Your task to perform on an android device: turn vacation reply on in the gmail app Image 0: 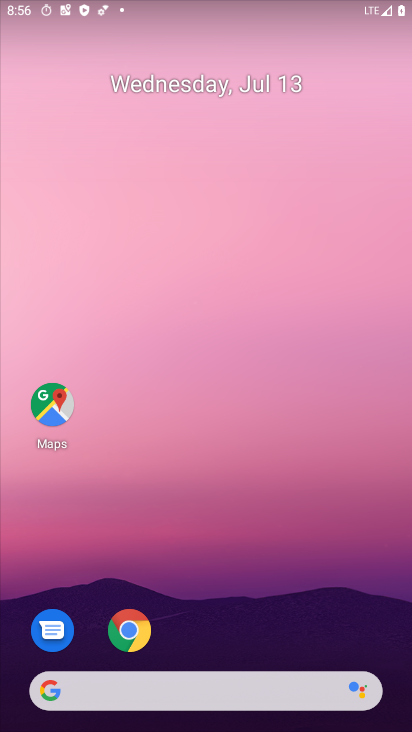
Step 0: drag from (316, 621) to (379, 184)
Your task to perform on an android device: turn vacation reply on in the gmail app Image 1: 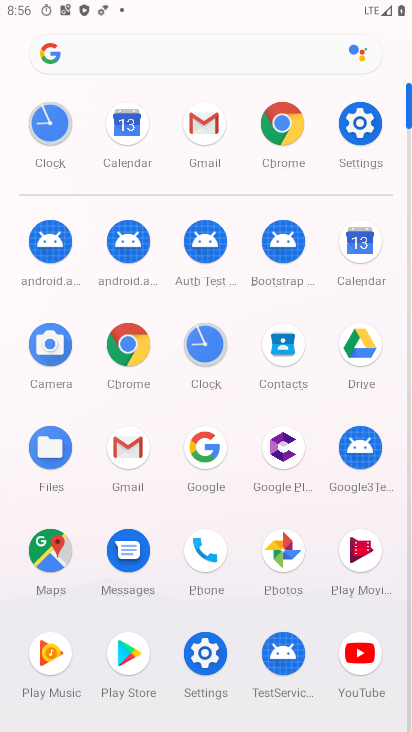
Step 1: click (130, 453)
Your task to perform on an android device: turn vacation reply on in the gmail app Image 2: 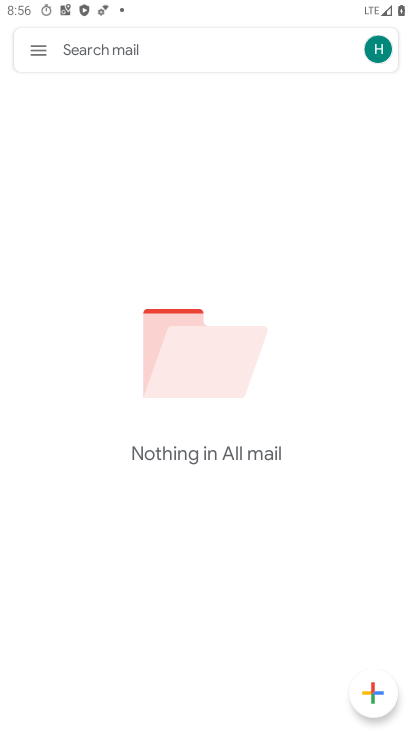
Step 2: click (43, 54)
Your task to perform on an android device: turn vacation reply on in the gmail app Image 3: 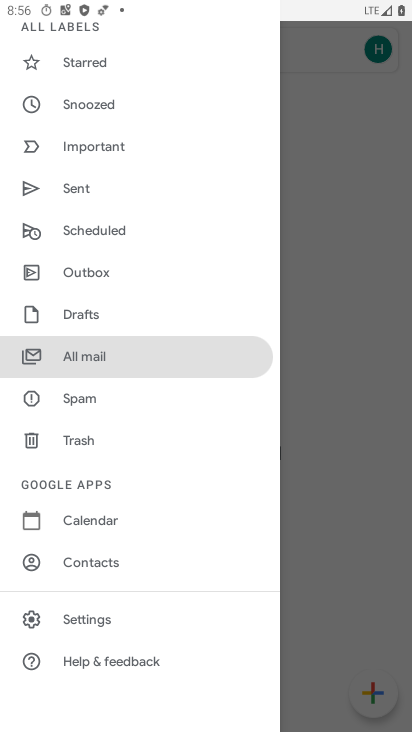
Step 3: drag from (189, 233) to (194, 354)
Your task to perform on an android device: turn vacation reply on in the gmail app Image 4: 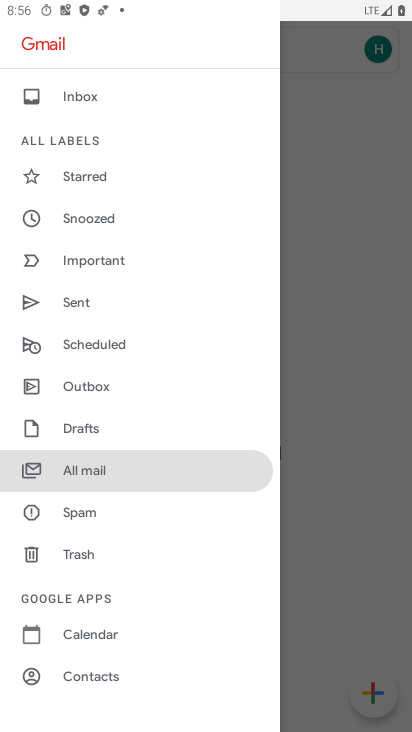
Step 4: drag from (203, 192) to (205, 398)
Your task to perform on an android device: turn vacation reply on in the gmail app Image 5: 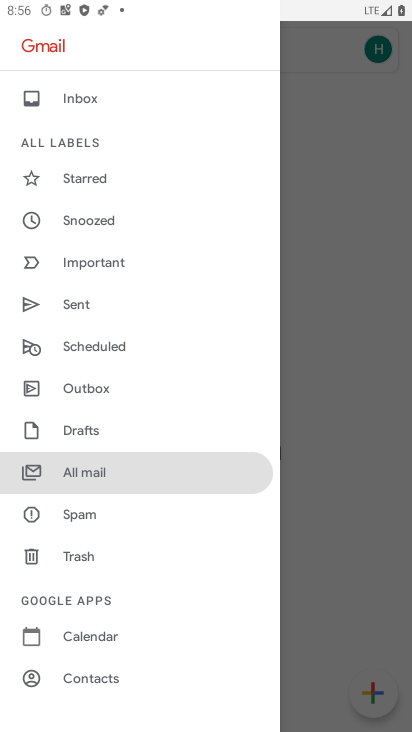
Step 5: drag from (215, 467) to (230, 269)
Your task to perform on an android device: turn vacation reply on in the gmail app Image 6: 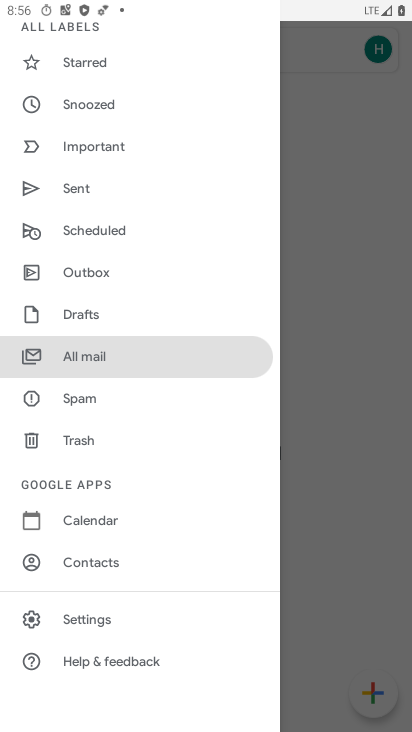
Step 6: click (104, 628)
Your task to perform on an android device: turn vacation reply on in the gmail app Image 7: 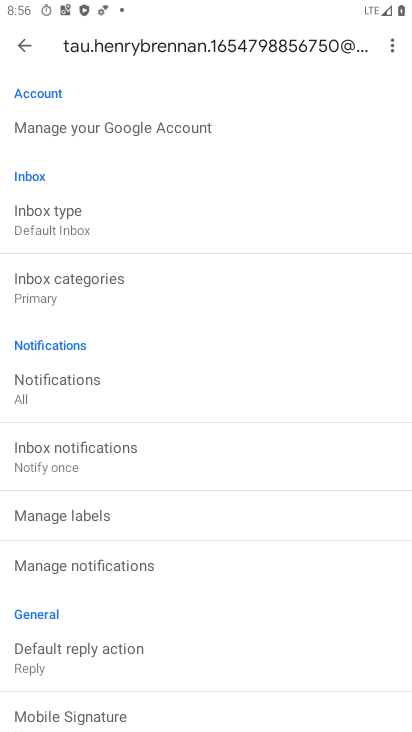
Step 7: drag from (255, 571) to (273, 448)
Your task to perform on an android device: turn vacation reply on in the gmail app Image 8: 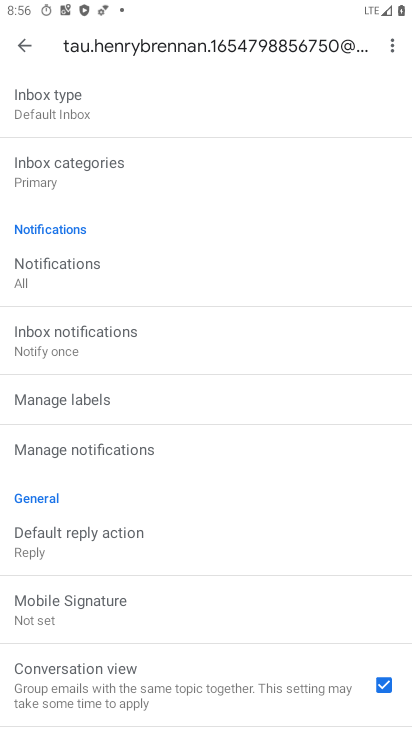
Step 8: drag from (282, 537) to (285, 425)
Your task to perform on an android device: turn vacation reply on in the gmail app Image 9: 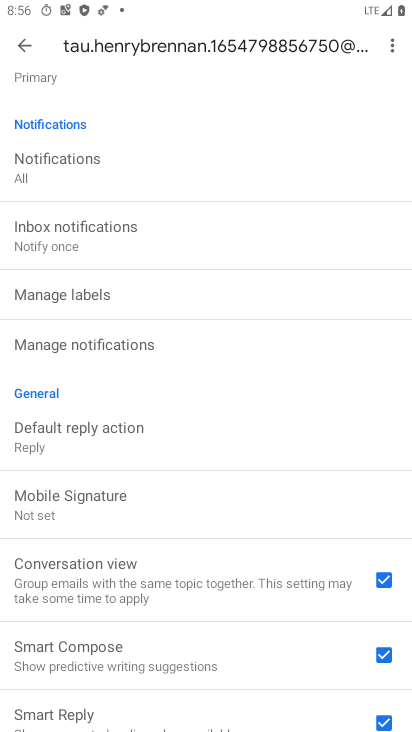
Step 9: drag from (273, 553) to (270, 424)
Your task to perform on an android device: turn vacation reply on in the gmail app Image 10: 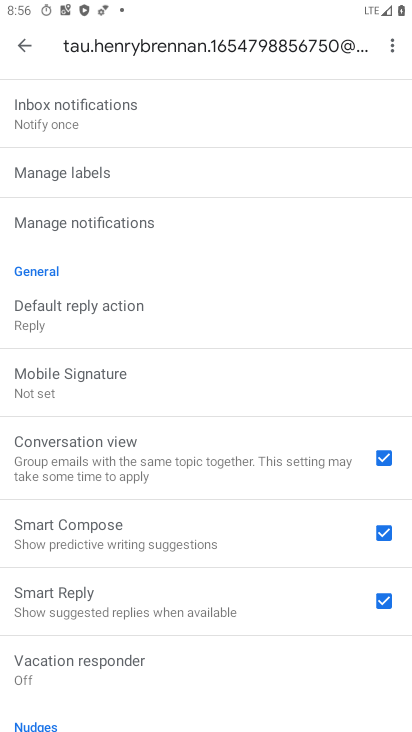
Step 10: drag from (259, 521) to (270, 416)
Your task to perform on an android device: turn vacation reply on in the gmail app Image 11: 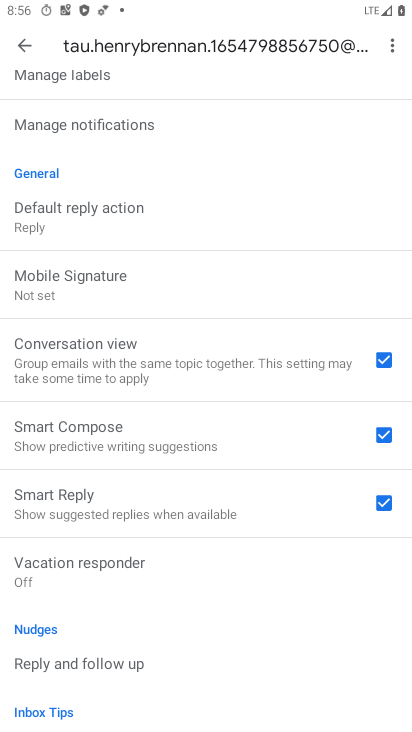
Step 11: drag from (270, 570) to (267, 341)
Your task to perform on an android device: turn vacation reply on in the gmail app Image 12: 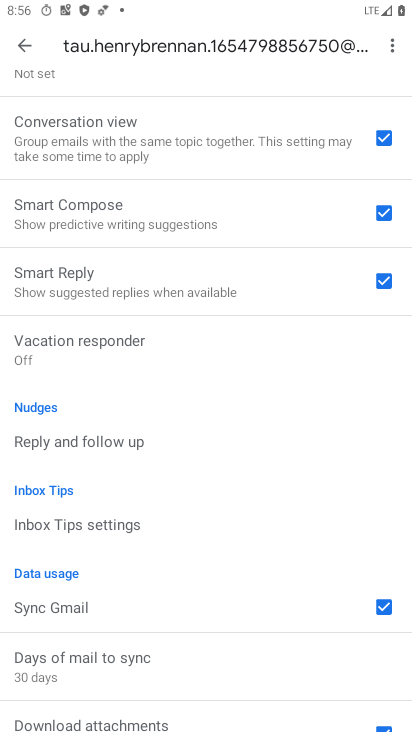
Step 12: drag from (247, 528) to (254, 394)
Your task to perform on an android device: turn vacation reply on in the gmail app Image 13: 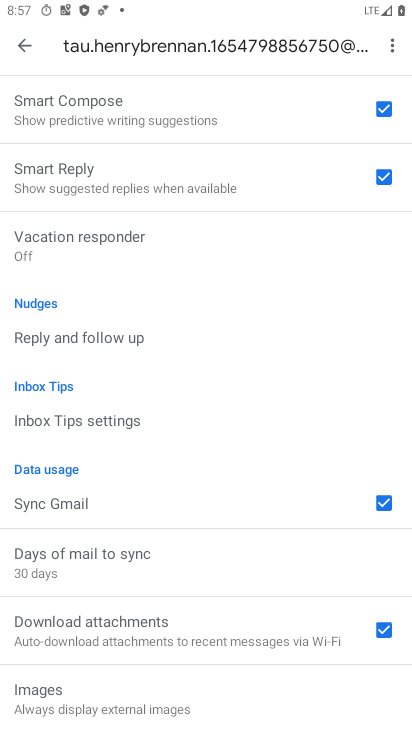
Step 13: click (151, 262)
Your task to perform on an android device: turn vacation reply on in the gmail app Image 14: 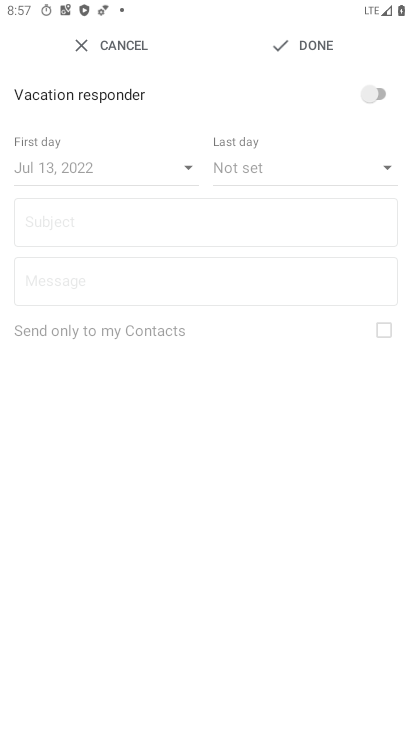
Step 14: click (363, 93)
Your task to perform on an android device: turn vacation reply on in the gmail app Image 15: 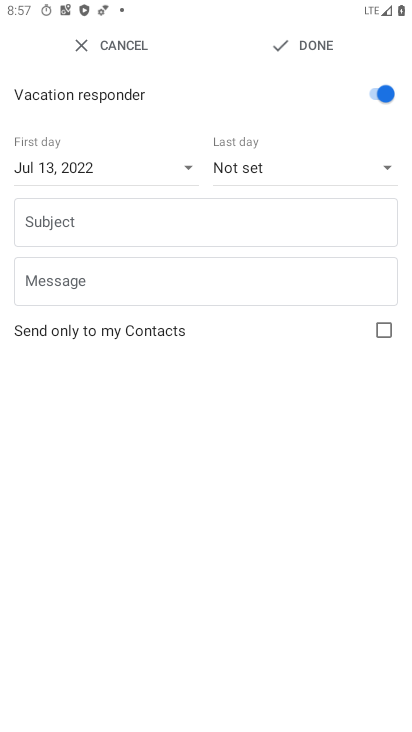
Step 15: task complete